Your task to perform on an android device: What is the recent news? Image 0: 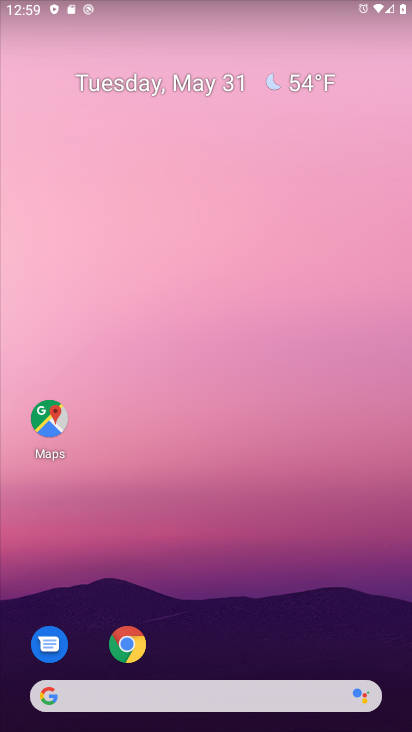
Step 0: press home button
Your task to perform on an android device: What is the recent news? Image 1: 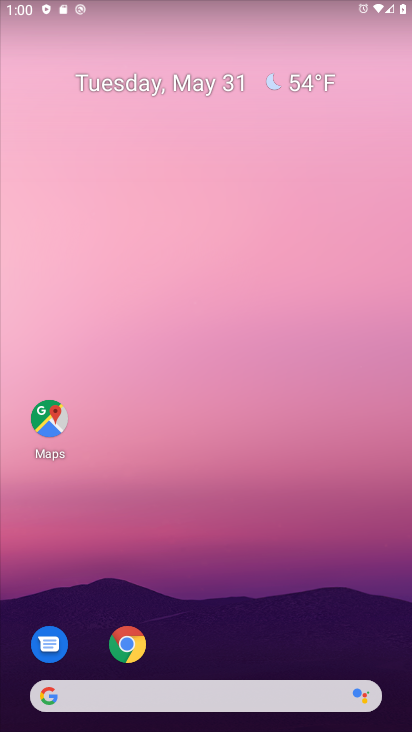
Step 1: click (49, 693)
Your task to perform on an android device: What is the recent news? Image 2: 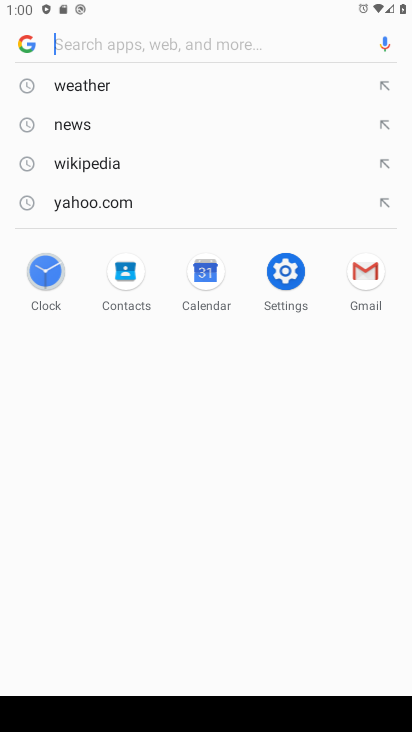
Step 2: type "recent news?"
Your task to perform on an android device: What is the recent news? Image 3: 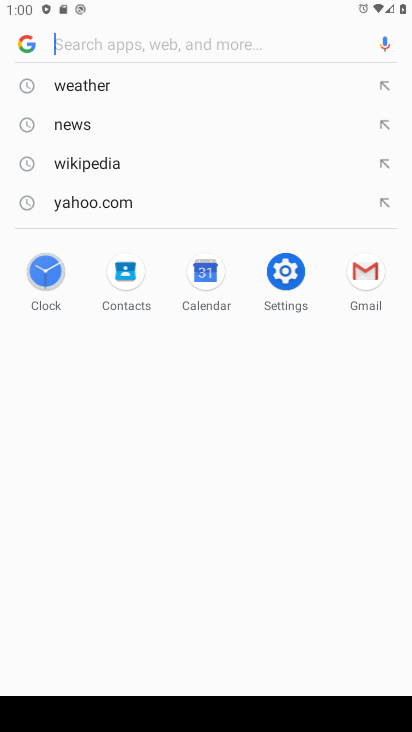
Step 3: click (160, 41)
Your task to perform on an android device: What is the recent news? Image 4: 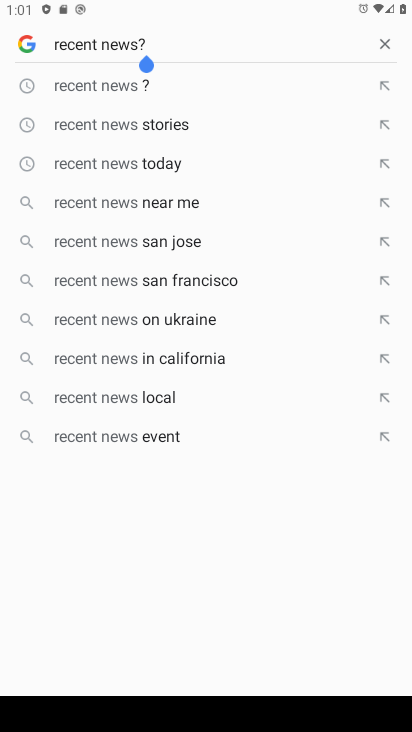
Step 4: click (109, 89)
Your task to perform on an android device: What is the recent news? Image 5: 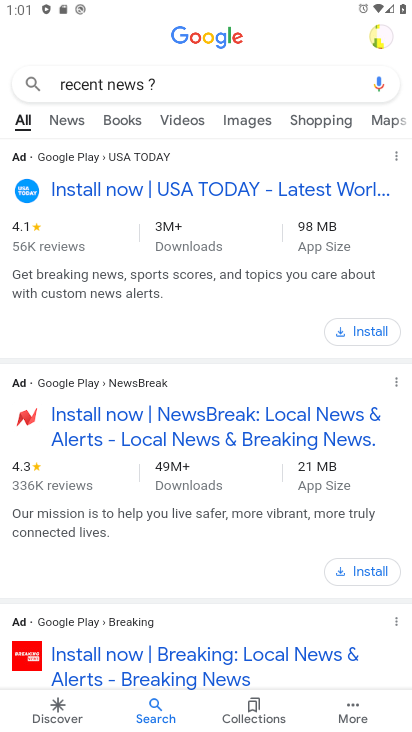
Step 5: task complete